Your task to perform on an android device: stop showing notifications on the lock screen Image 0: 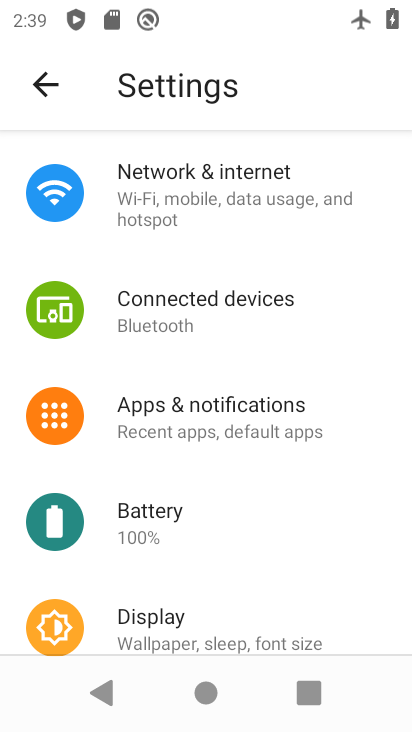
Step 0: click (279, 423)
Your task to perform on an android device: stop showing notifications on the lock screen Image 1: 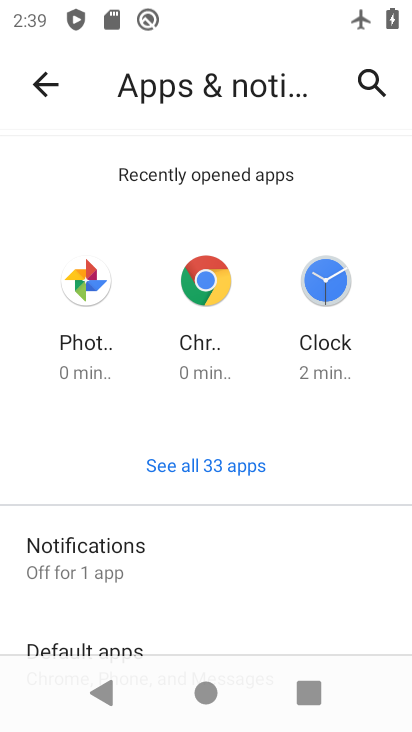
Step 1: drag from (235, 590) to (234, 267)
Your task to perform on an android device: stop showing notifications on the lock screen Image 2: 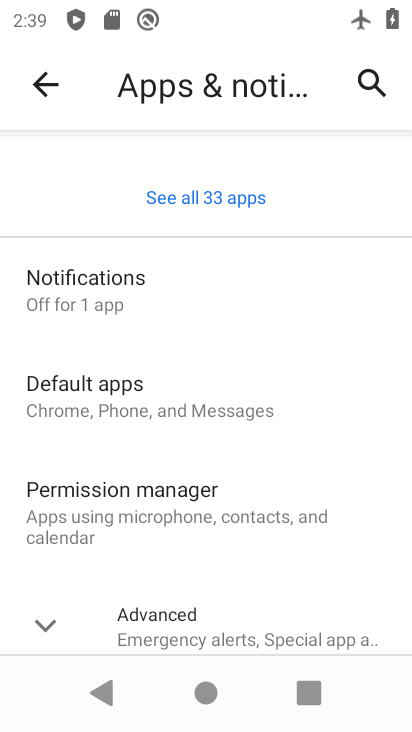
Step 2: click (166, 299)
Your task to perform on an android device: stop showing notifications on the lock screen Image 3: 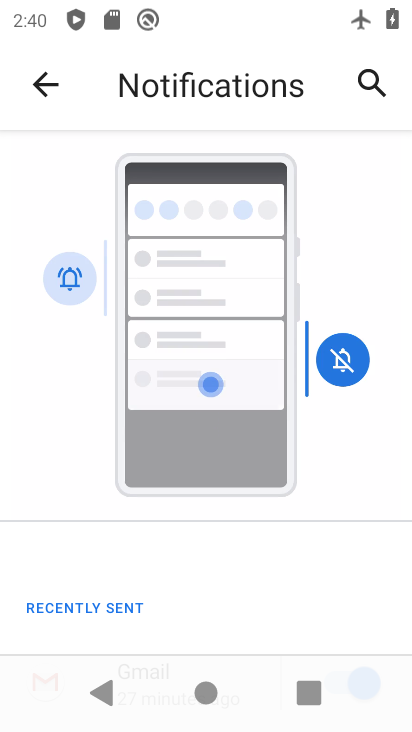
Step 3: drag from (187, 645) to (205, 308)
Your task to perform on an android device: stop showing notifications on the lock screen Image 4: 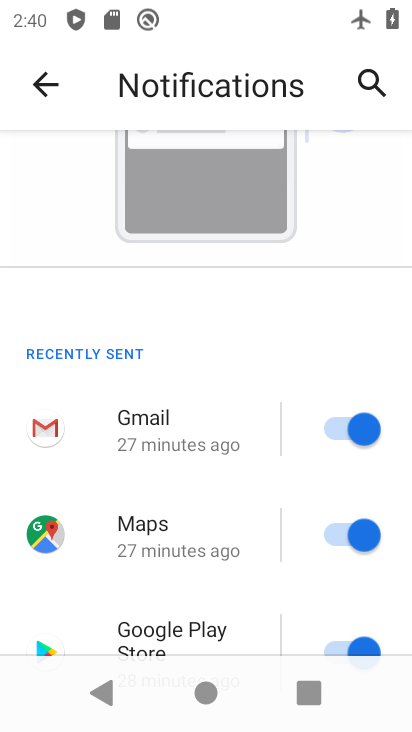
Step 4: drag from (199, 622) to (213, 326)
Your task to perform on an android device: stop showing notifications on the lock screen Image 5: 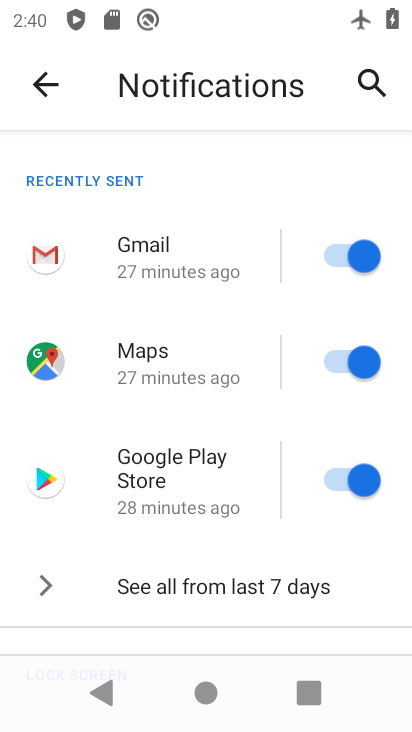
Step 5: drag from (192, 627) to (271, 138)
Your task to perform on an android device: stop showing notifications on the lock screen Image 6: 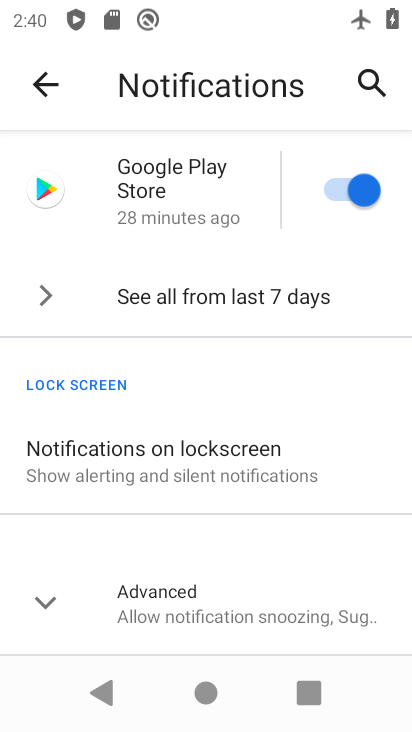
Step 6: click (200, 471)
Your task to perform on an android device: stop showing notifications on the lock screen Image 7: 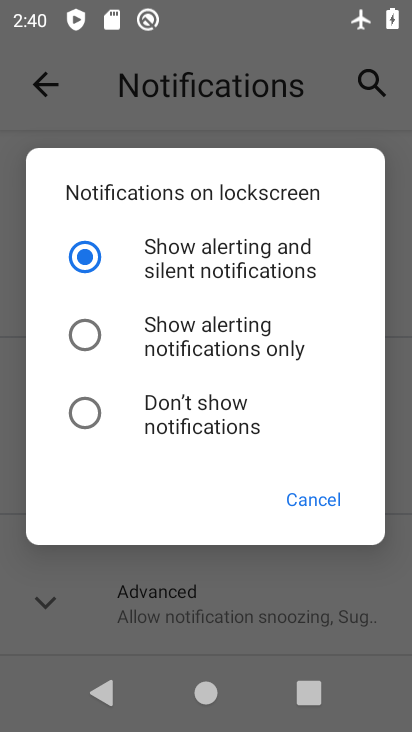
Step 7: click (159, 403)
Your task to perform on an android device: stop showing notifications on the lock screen Image 8: 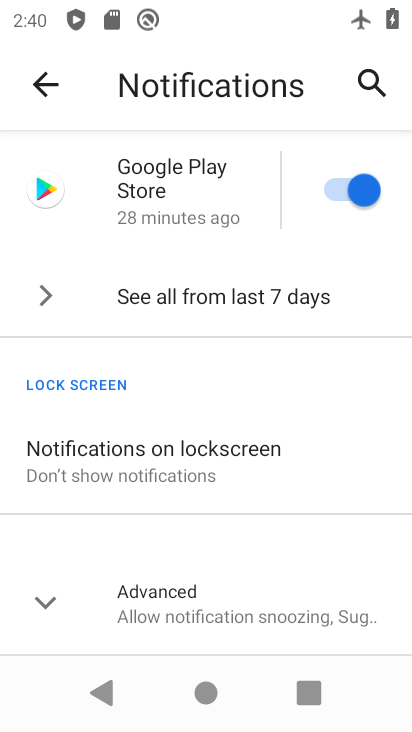
Step 8: task complete